Your task to perform on an android device: open wifi settings Image 0: 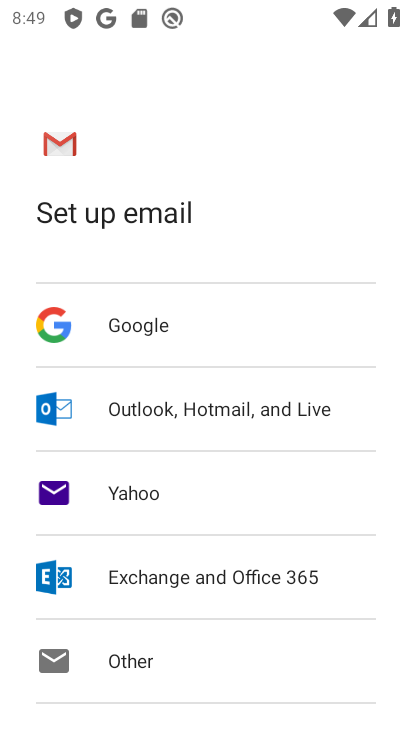
Step 0: press home button
Your task to perform on an android device: open wifi settings Image 1: 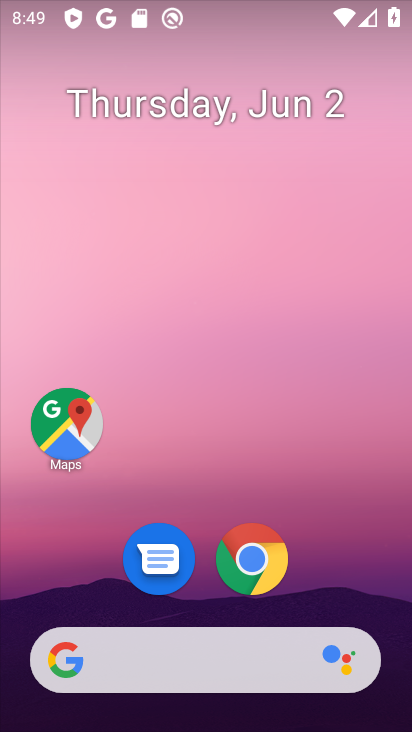
Step 1: drag from (163, 726) to (271, 130)
Your task to perform on an android device: open wifi settings Image 2: 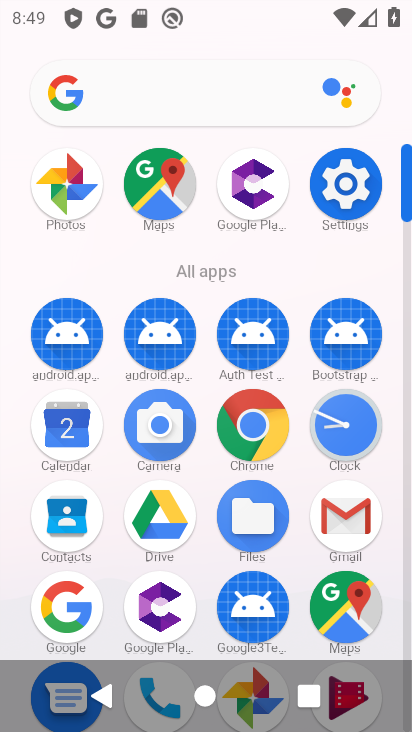
Step 2: click (355, 218)
Your task to perform on an android device: open wifi settings Image 3: 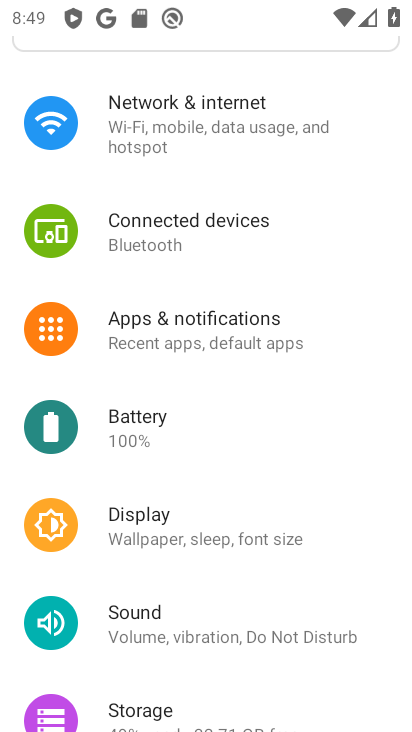
Step 3: click (228, 126)
Your task to perform on an android device: open wifi settings Image 4: 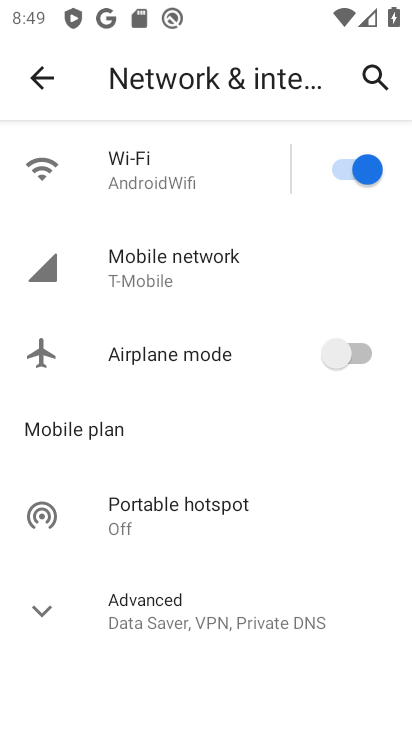
Step 4: click (148, 194)
Your task to perform on an android device: open wifi settings Image 5: 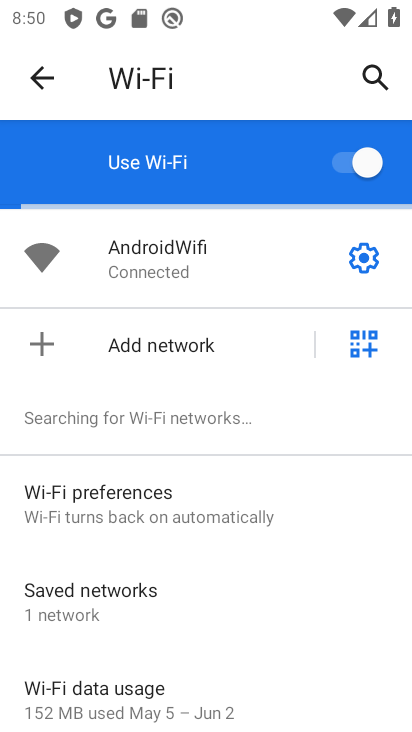
Step 5: task complete